Your task to perform on an android device: change the clock style Image 0: 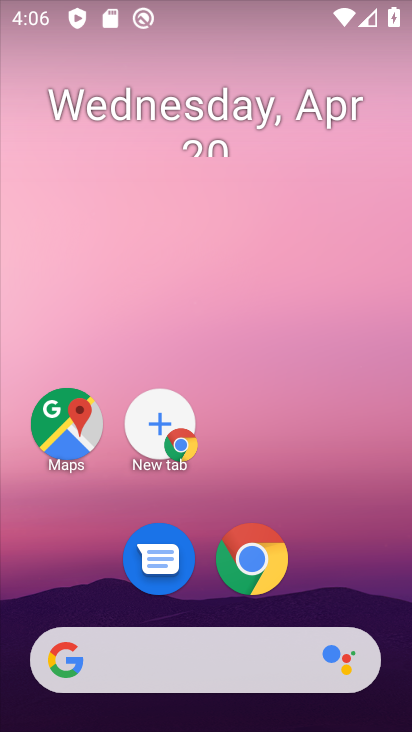
Step 0: drag from (330, 592) to (313, 192)
Your task to perform on an android device: change the clock style Image 1: 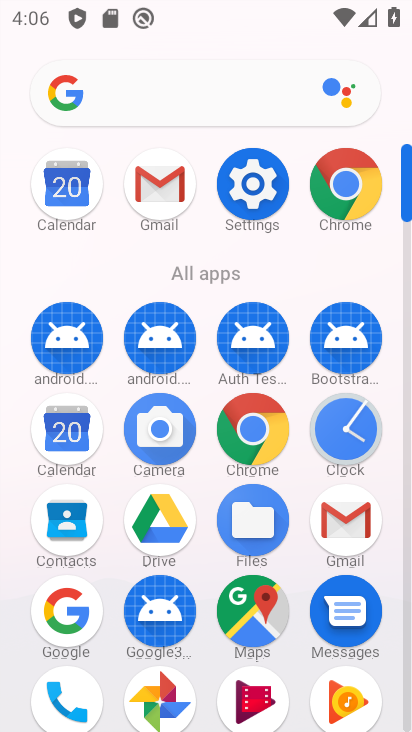
Step 1: click (249, 203)
Your task to perform on an android device: change the clock style Image 2: 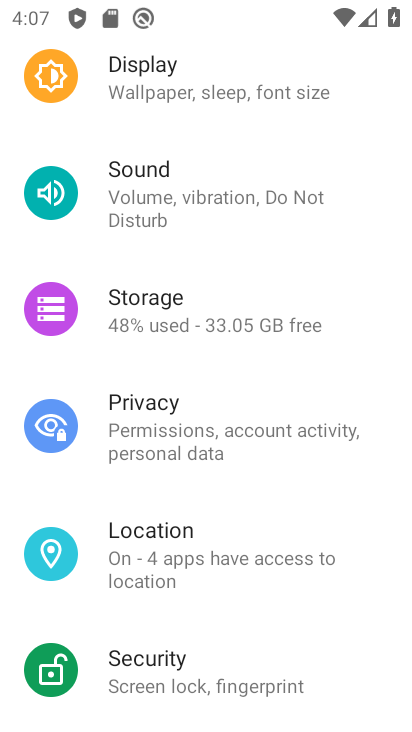
Step 2: press home button
Your task to perform on an android device: change the clock style Image 3: 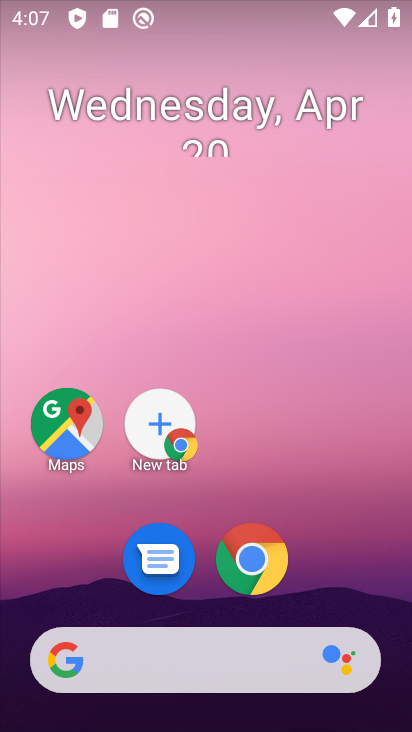
Step 3: drag from (309, 476) to (232, 35)
Your task to perform on an android device: change the clock style Image 4: 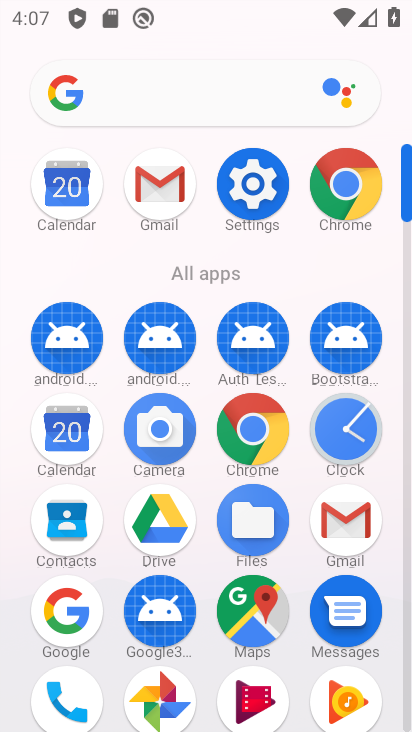
Step 4: click (342, 450)
Your task to perform on an android device: change the clock style Image 5: 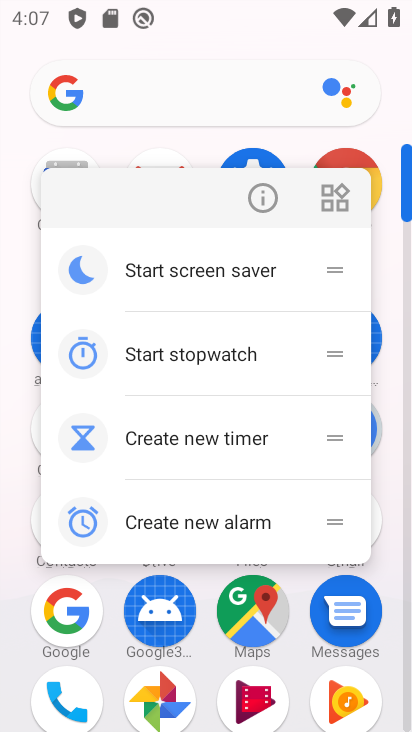
Step 5: click (377, 433)
Your task to perform on an android device: change the clock style Image 6: 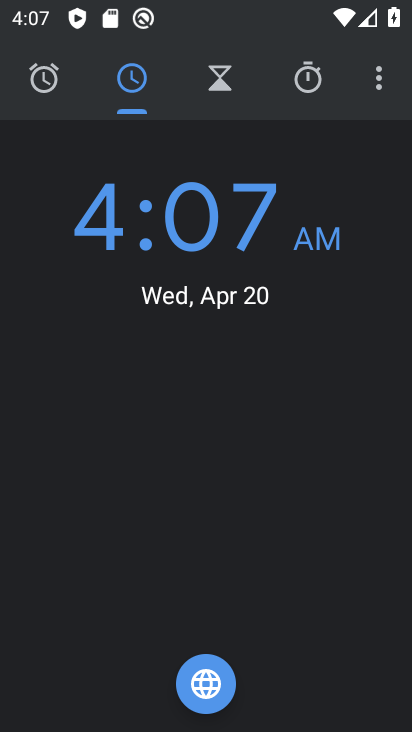
Step 6: click (375, 433)
Your task to perform on an android device: change the clock style Image 7: 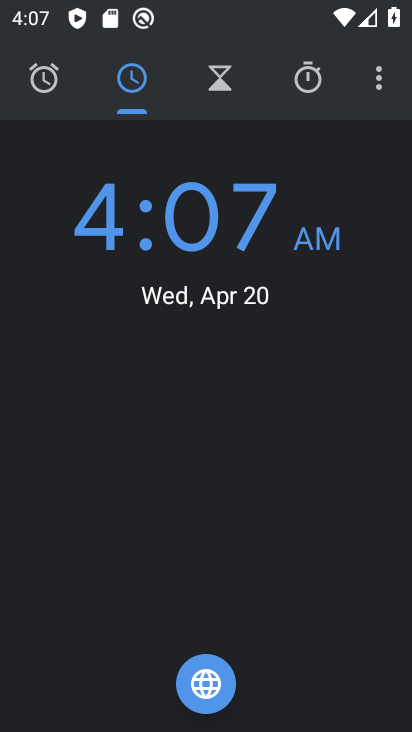
Step 7: click (377, 92)
Your task to perform on an android device: change the clock style Image 8: 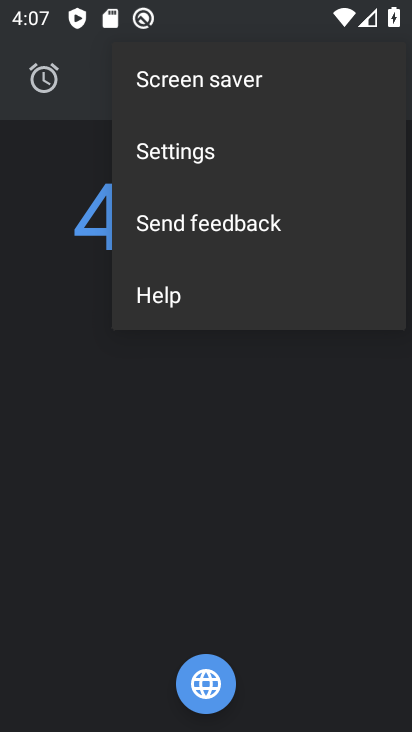
Step 8: click (259, 142)
Your task to perform on an android device: change the clock style Image 9: 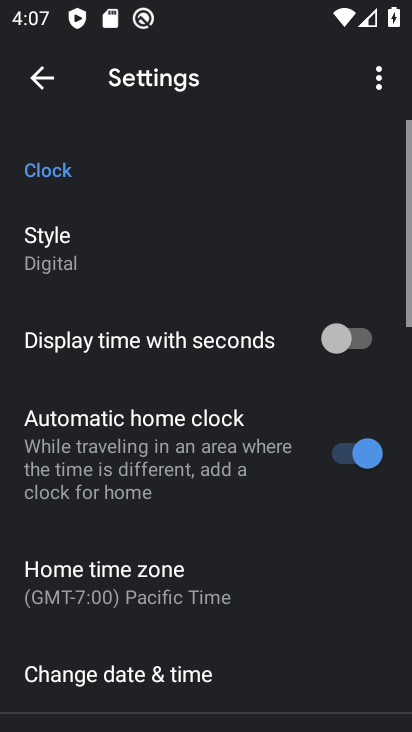
Step 9: drag from (207, 554) to (207, 507)
Your task to perform on an android device: change the clock style Image 10: 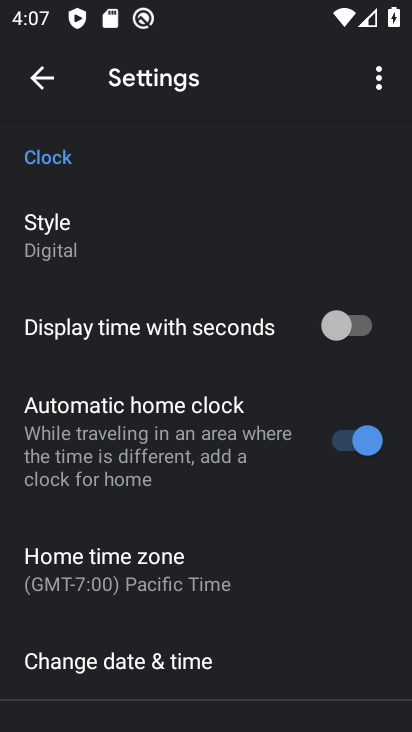
Step 10: click (109, 231)
Your task to perform on an android device: change the clock style Image 11: 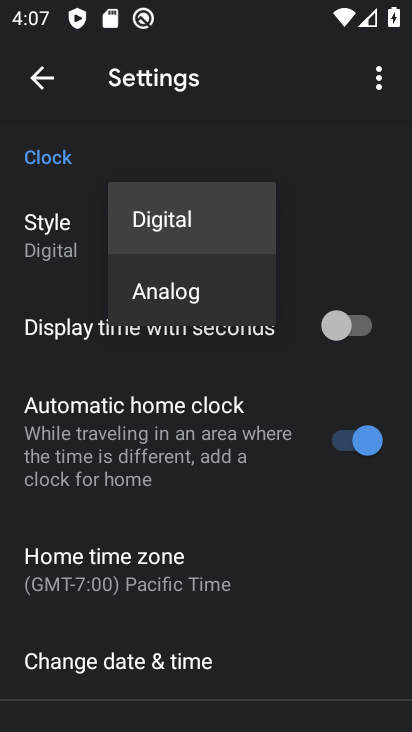
Step 11: click (207, 277)
Your task to perform on an android device: change the clock style Image 12: 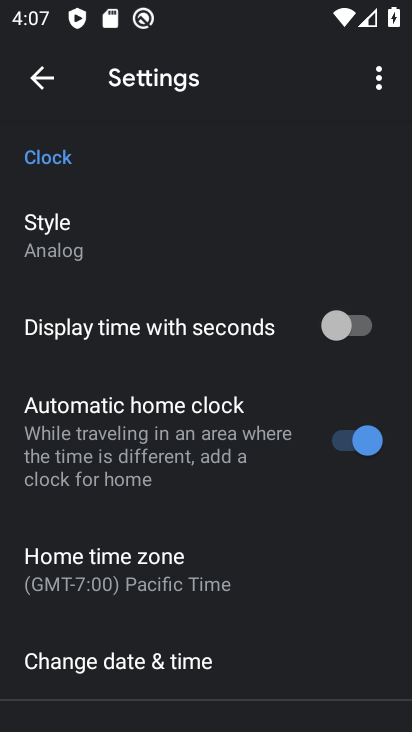
Step 12: task complete